Your task to perform on an android device: Search for vegetarian restaurants on Maps Image 0: 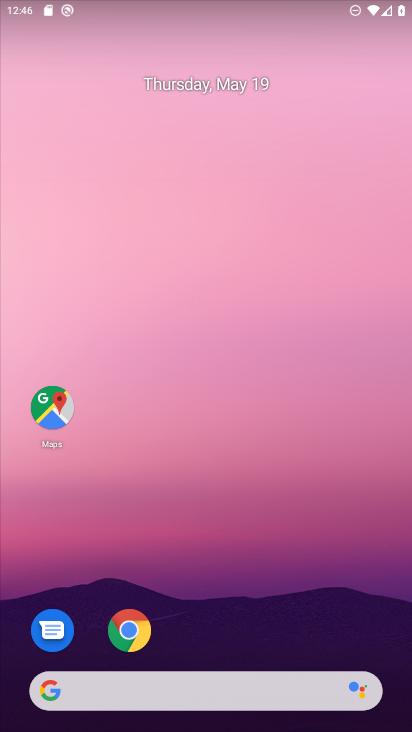
Step 0: drag from (174, 628) to (180, 167)
Your task to perform on an android device: Search for vegetarian restaurants on Maps Image 1: 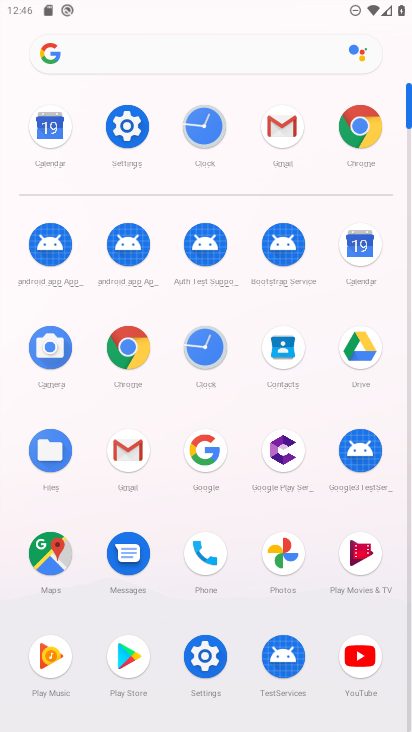
Step 1: click (44, 548)
Your task to perform on an android device: Search for vegetarian restaurants on Maps Image 2: 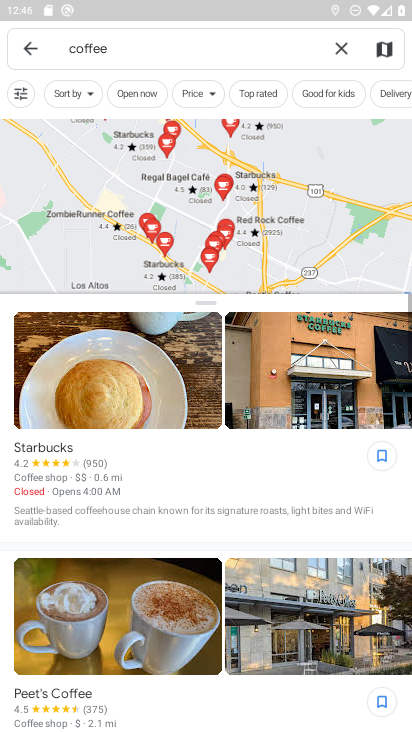
Step 2: click (337, 51)
Your task to perform on an android device: Search for vegetarian restaurants on Maps Image 3: 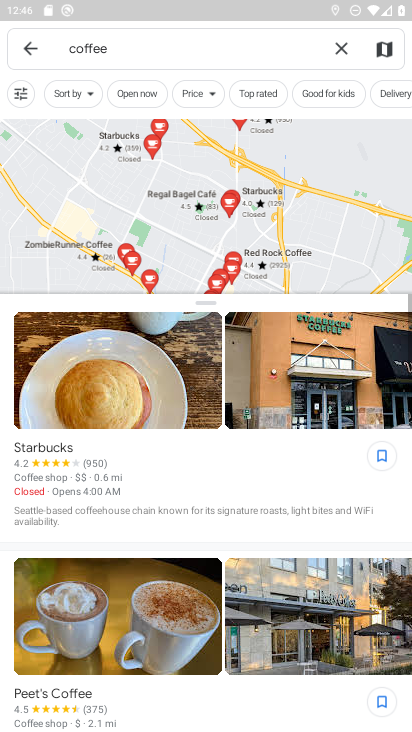
Step 3: click (190, 56)
Your task to perform on an android device: Search for vegetarian restaurants on Maps Image 4: 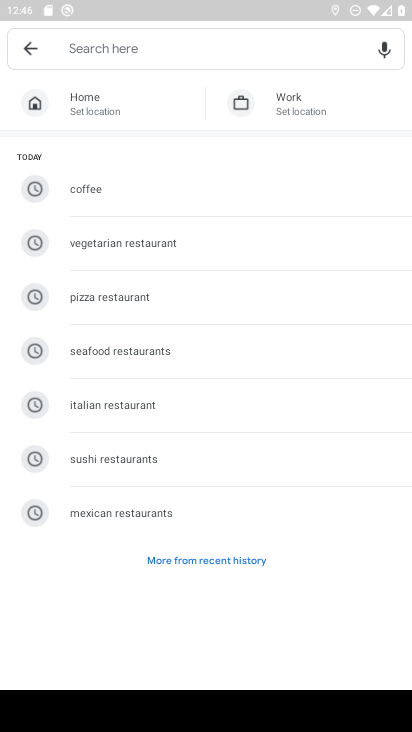
Step 4: click (104, 236)
Your task to perform on an android device: Search for vegetarian restaurants on Maps Image 5: 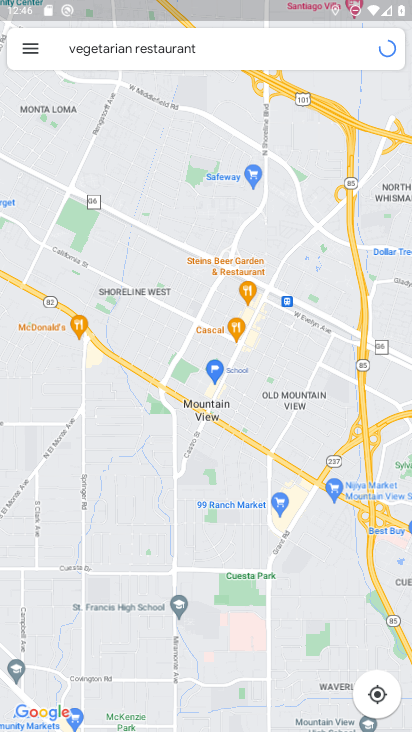
Step 5: task complete